Your task to perform on an android device: Open Google Chrome and open the bookmarks view Image 0: 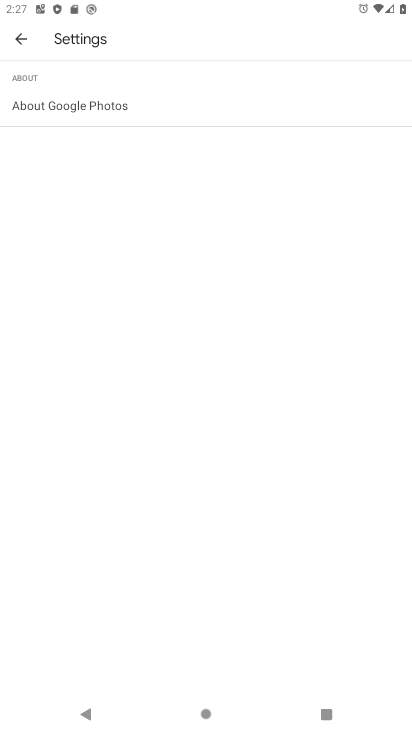
Step 0: press home button
Your task to perform on an android device: Open Google Chrome and open the bookmarks view Image 1: 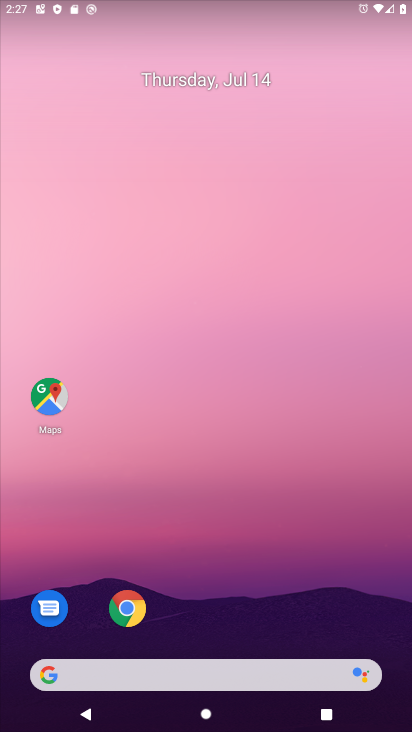
Step 1: drag from (241, 717) to (218, 180)
Your task to perform on an android device: Open Google Chrome and open the bookmarks view Image 2: 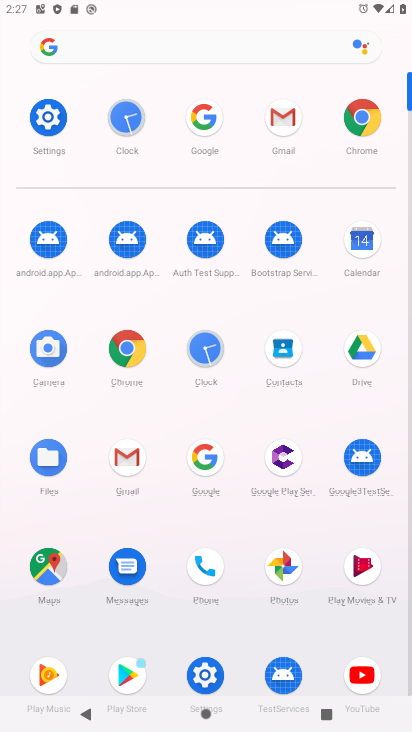
Step 2: click (130, 348)
Your task to perform on an android device: Open Google Chrome and open the bookmarks view Image 3: 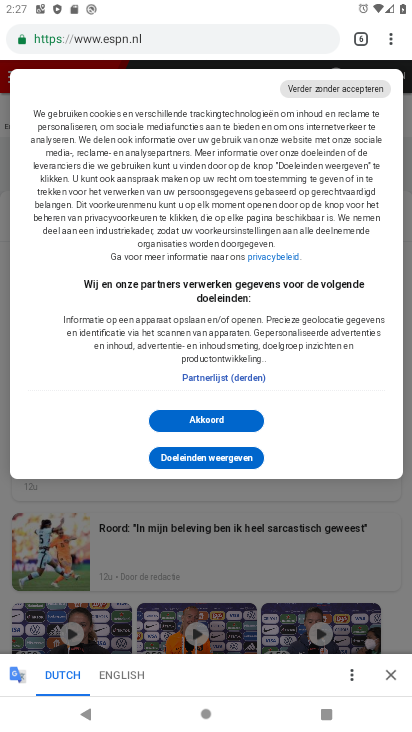
Step 3: click (391, 39)
Your task to perform on an android device: Open Google Chrome and open the bookmarks view Image 4: 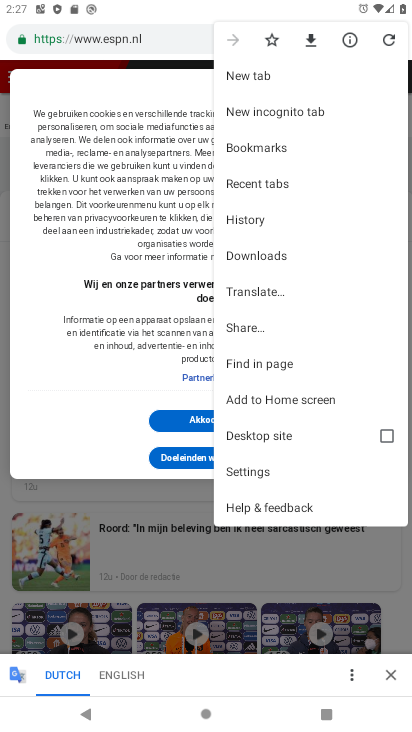
Step 4: click (270, 145)
Your task to perform on an android device: Open Google Chrome and open the bookmarks view Image 5: 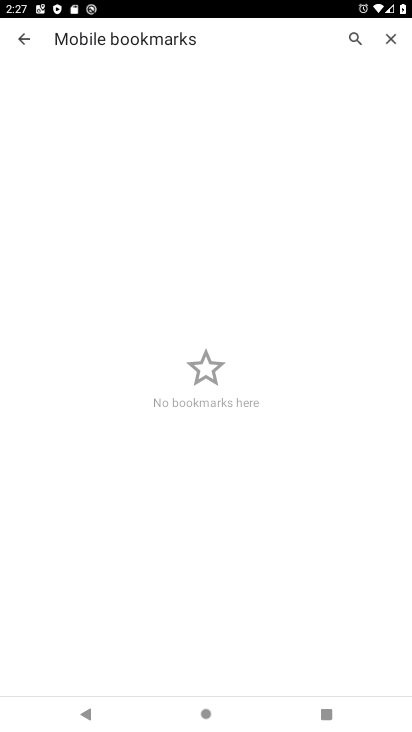
Step 5: task complete